Your task to perform on an android device: Go to network settings Image 0: 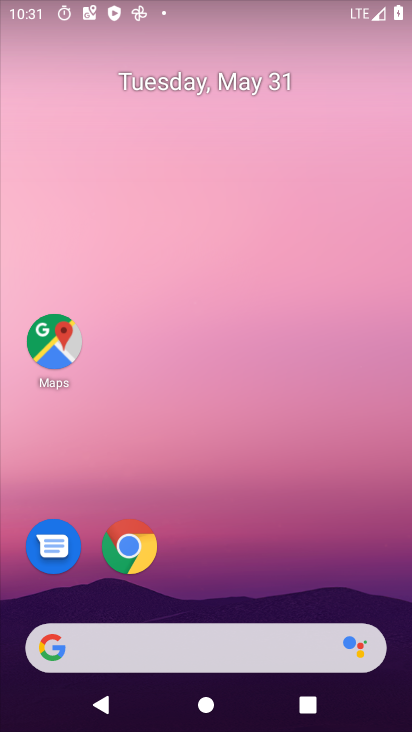
Step 0: drag from (305, 530) to (348, 1)
Your task to perform on an android device: Go to network settings Image 1: 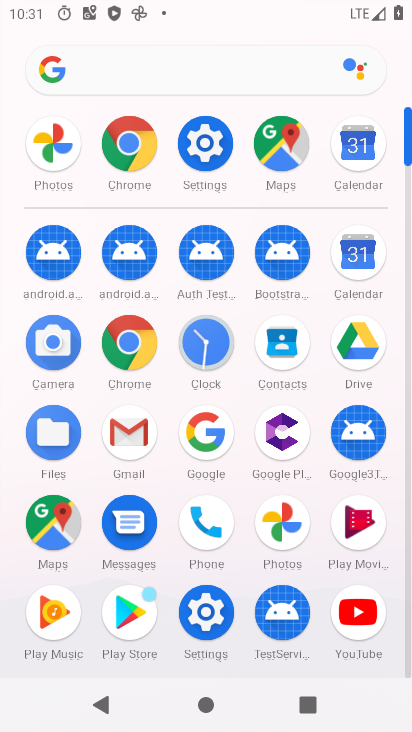
Step 1: click (208, 148)
Your task to perform on an android device: Go to network settings Image 2: 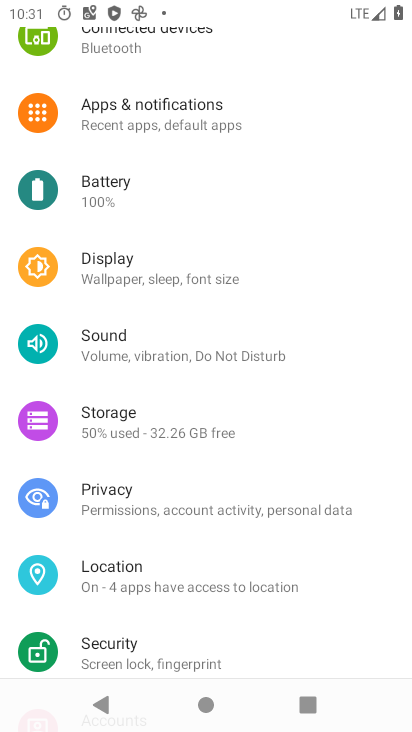
Step 2: drag from (279, 120) to (222, 562)
Your task to perform on an android device: Go to network settings Image 3: 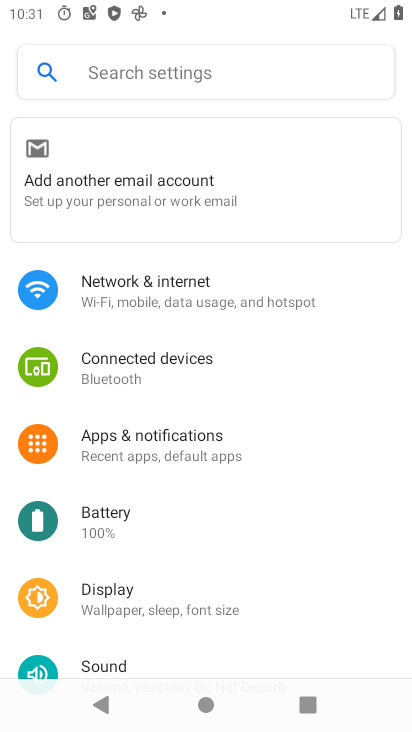
Step 3: click (238, 270)
Your task to perform on an android device: Go to network settings Image 4: 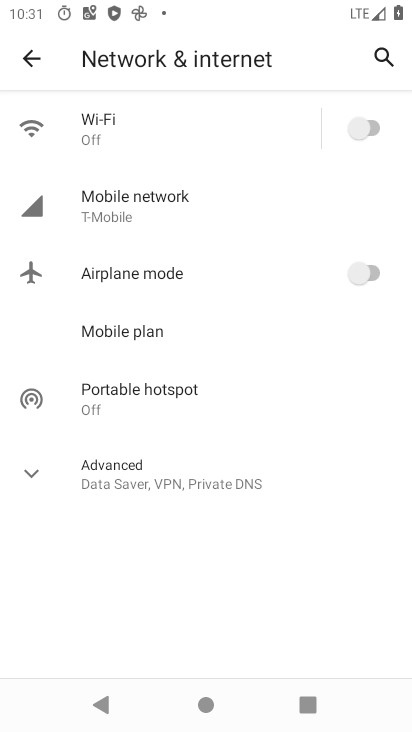
Step 4: task complete